Your task to perform on an android device: check data usage Image 0: 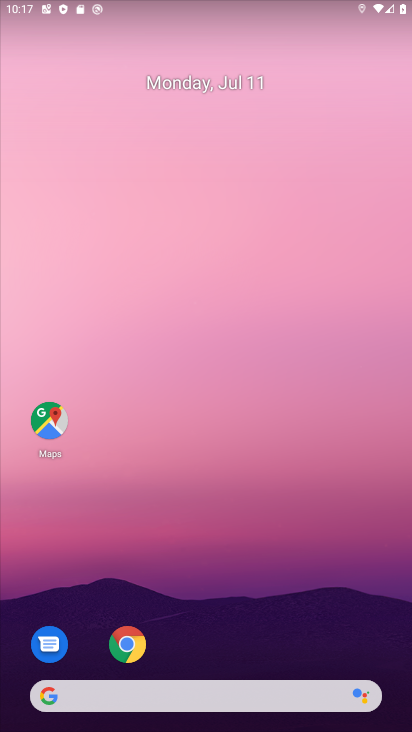
Step 0: press home button
Your task to perform on an android device: check data usage Image 1: 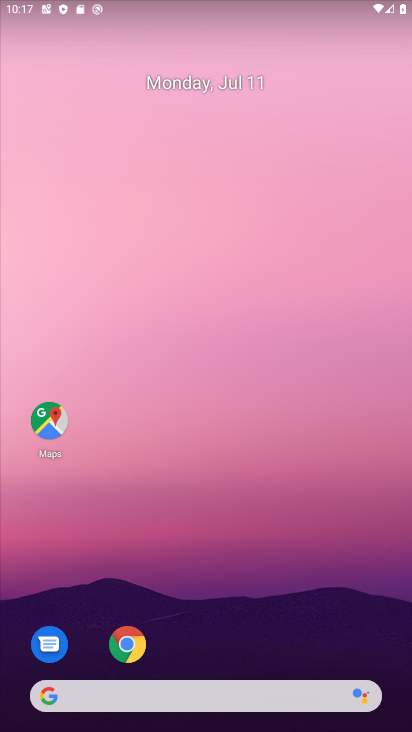
Step 1: drag from (215, 647) to (230, 115)
Your task to perform on an android device: check data usage Image 2: 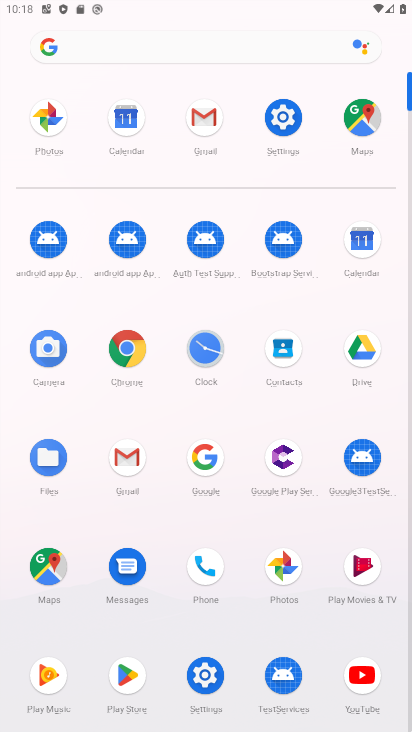
Step 2: click (285, 113)
Your task to perform on an android device: check data usage Image 3: 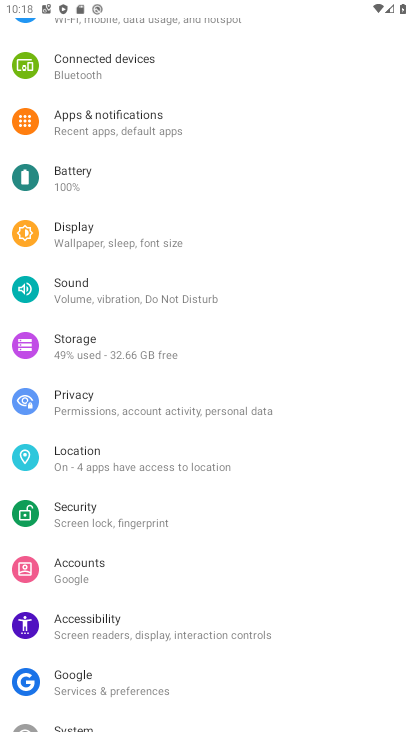
Step 3: drag from (130, 114) to (142, 562)
Your task to perform on an android device: check data usage Image 4: 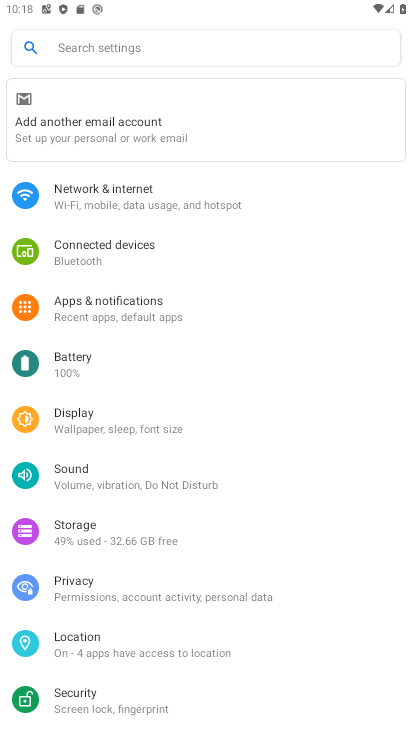
Step 4: click (168, 190)
Your task to perform on an android device: check data usage Image 5: 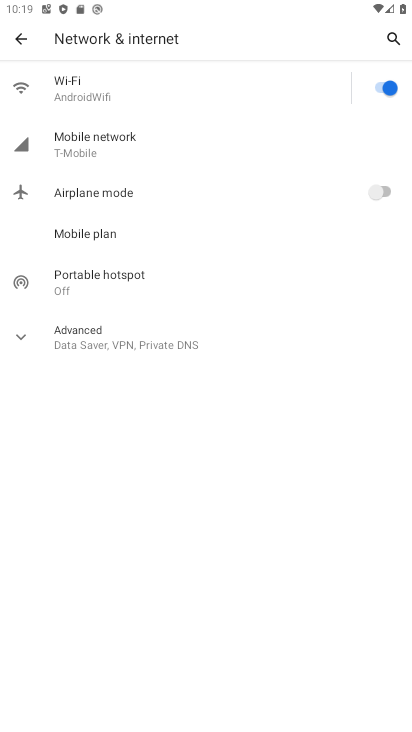
Step 5: click (19, 337)
Your task to perform on an android device: check data usage Image 6: 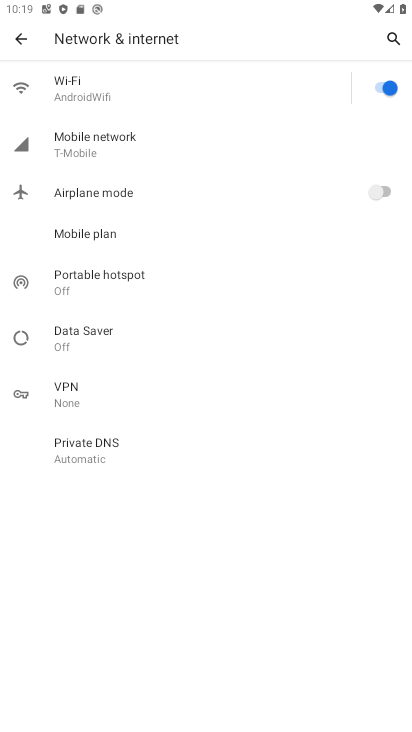
Step 6: click (109, 143)
Your task to perform on an android device: check data usage Image 7: 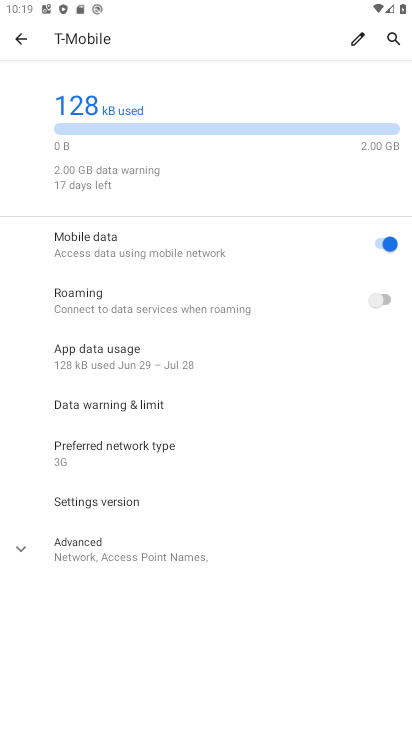
Step 7: click (145, 356)
Your task to perform on an android device: check data usage Image 8: 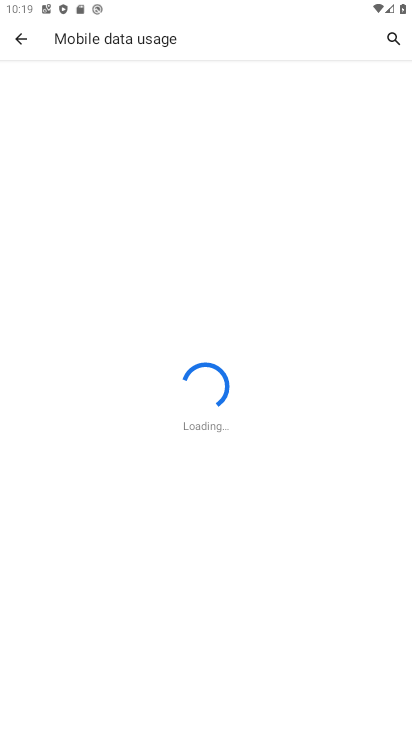
Step 8: task complete